Your task to perform on an android device: Open settings on Google Maps Image 0: 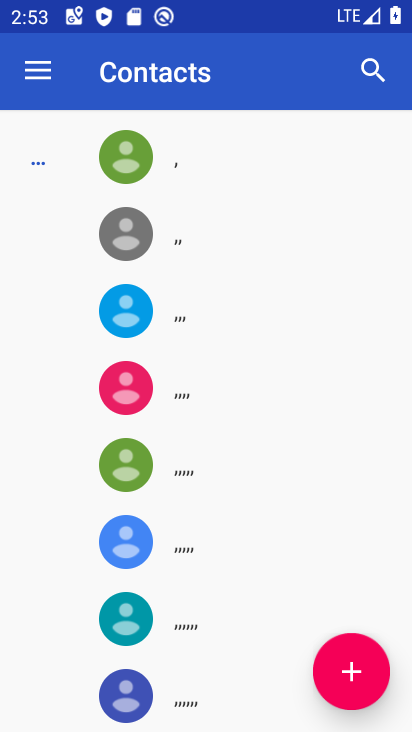
Step 0: press home button
Your task to perform on an android device: Open settings on Google Maps Image 1: 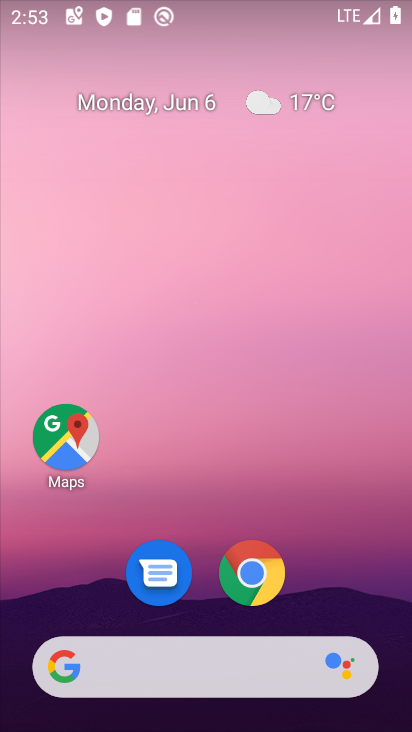
Step 1: drag from (341, 573) to (343, 161)
Your task to perform on an android device: Open settings on Google Maps Image 2: 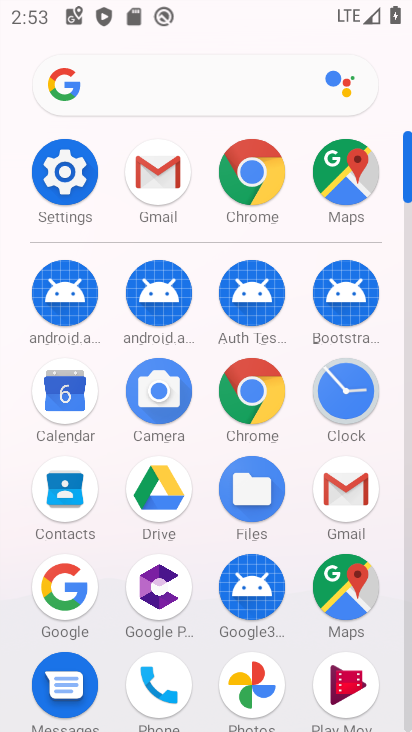
Step 2: click (360, 582)
Your task to perform on an android device: Open settings on Google Maps Image 3: 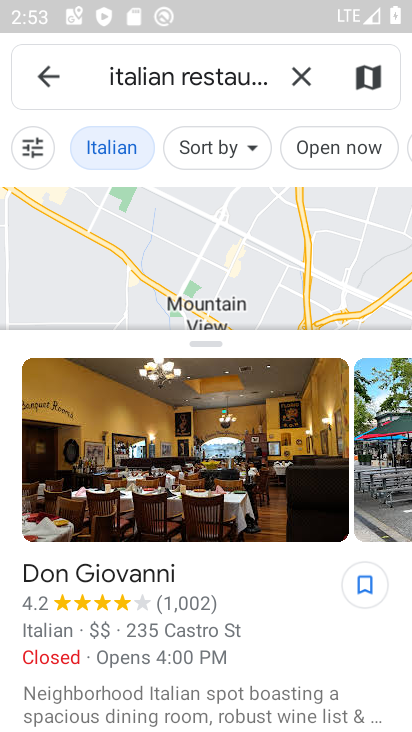
Step 3: press back button
Your task to perform on an android device: Open settings on Google Maps Image 4: 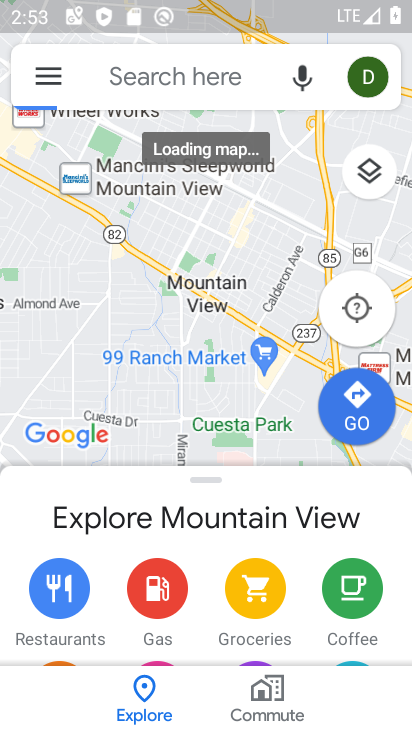
Step 4: click (58, 76)
Your task to perform on an android device: Open settings on Google Maps Image 5: 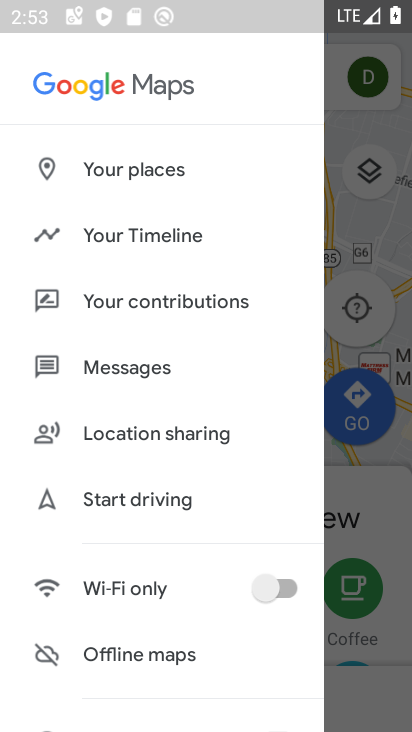
Step 5: drag from (265, 481) to (276, 335)
Your task to perform on an android device: Open settings on Google Maps Image 6: 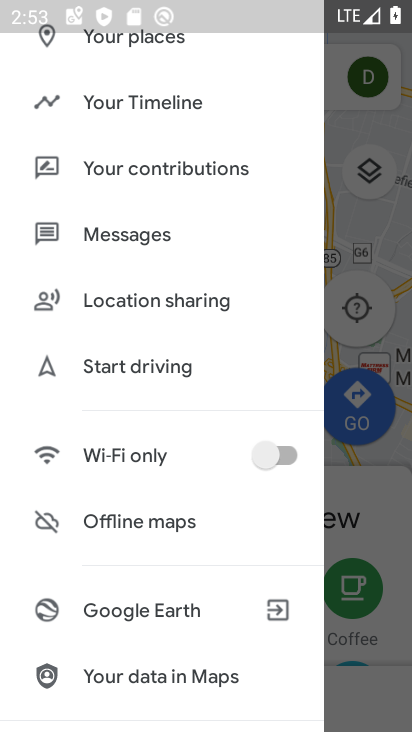
Step 6: drag from (210, 558) to (231, 345)
Your task to perform on an android device: Open settings on Google Maps Image 7: 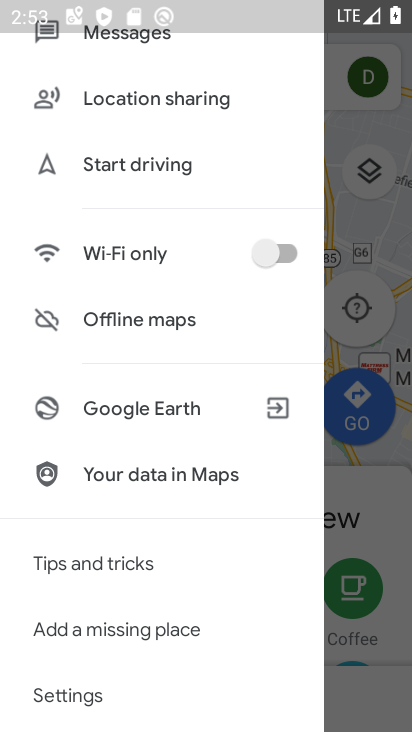
Step 7: drag from (221, 592) to (233, 419)
Your task to perform on an android device: Open settings on Google Maps Image 8: 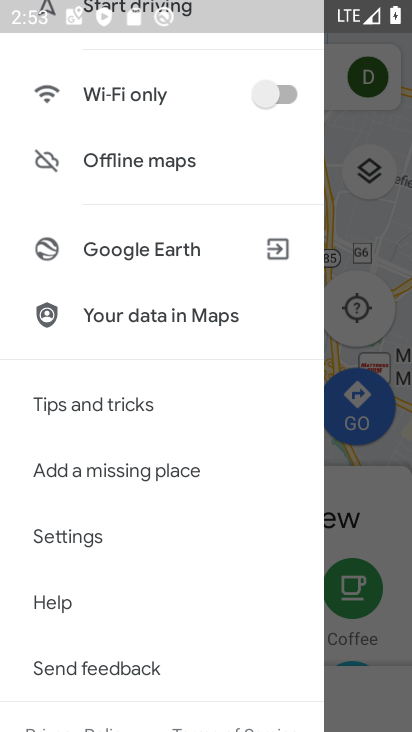
Step 8: drag from (205, 568) to (215, 418)
Your task to perform on an android device: Open settings on Google Maps Image 9: 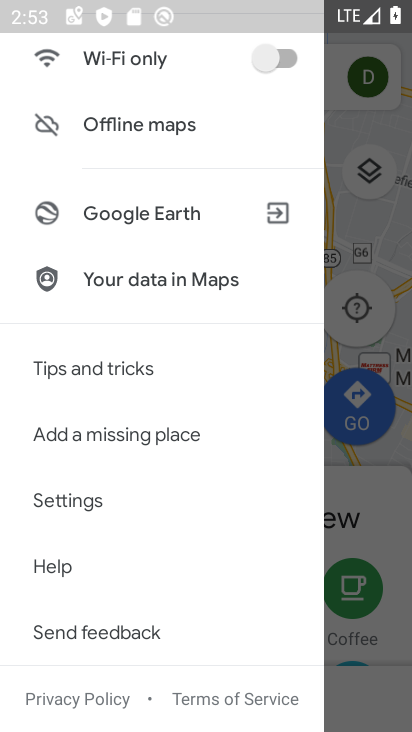
Step 9: click (114, 505)
Your task to perform on an android device: Open settings on Google Maps Image 10: 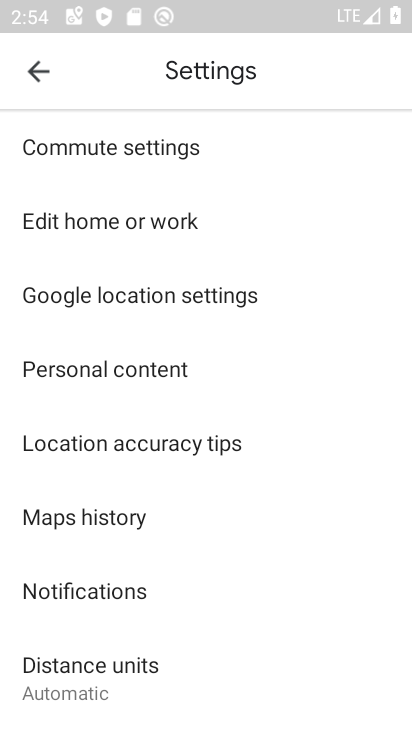
Step 10: task complete